Your task to perform on an android device: Go to eBay Image 0: 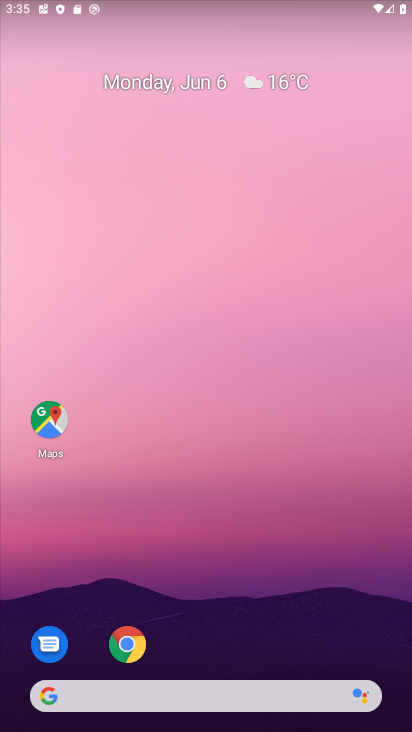
Step 0: drag from (260, 550) to (181, 25)
Your task to perform on an android device: Go to eBay Image 1: 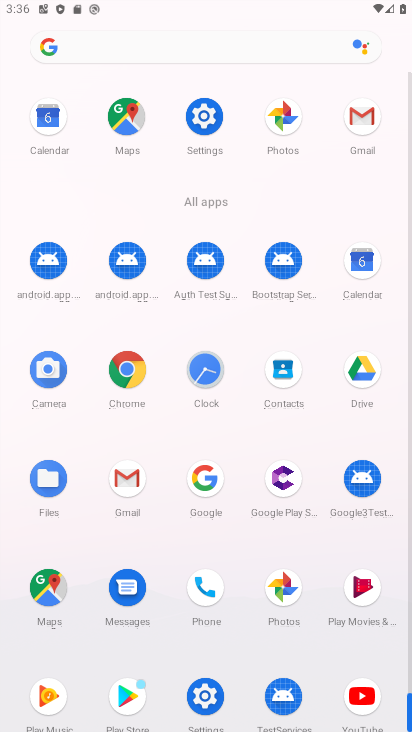
Step 1: click (122, 374)
Your task to perform on an android device: Go to eBay Image 2: 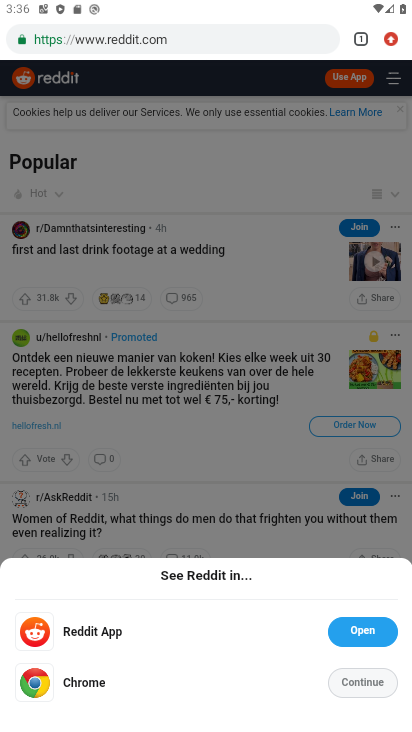
Step 2: click (148, 40)
Your task to perform on an android device: Go to eBay Image 3: 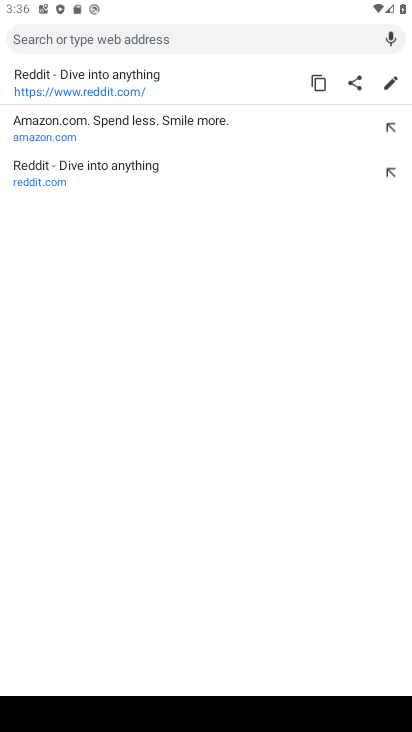
Step 3: type "eBay"
Your task to perform on an android device: Go to eBay Image 4: 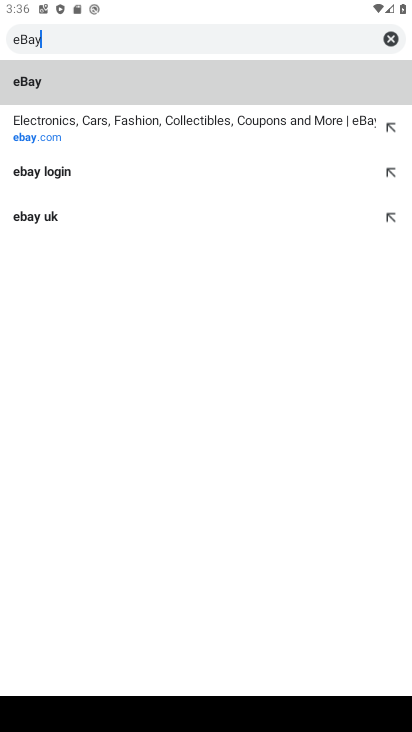
Step 4: type ""
Your task to perform on an android device: Go to eBay Image 5: 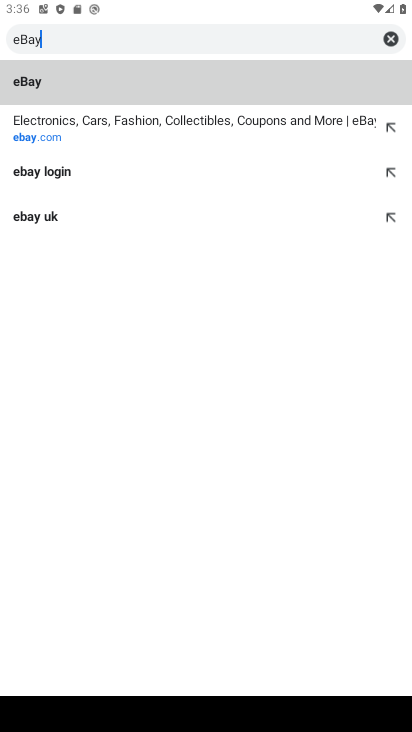
Step 5: click (121, 118)
Your task to perform on an android device: Go to eBay Image 6: 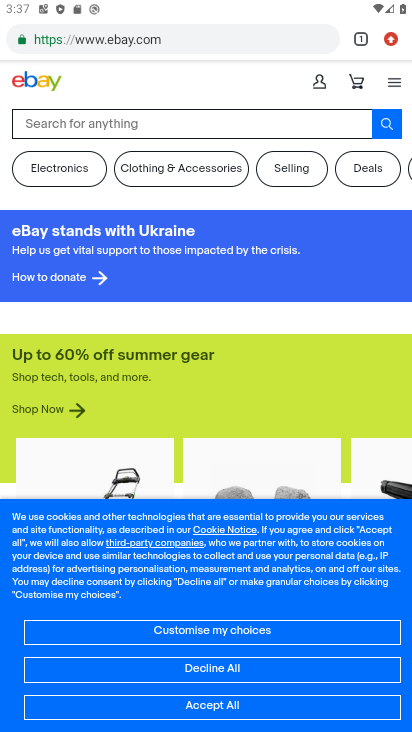
Step 6: task complete